Your task to perform on an android device: toggle wifi Image 0: 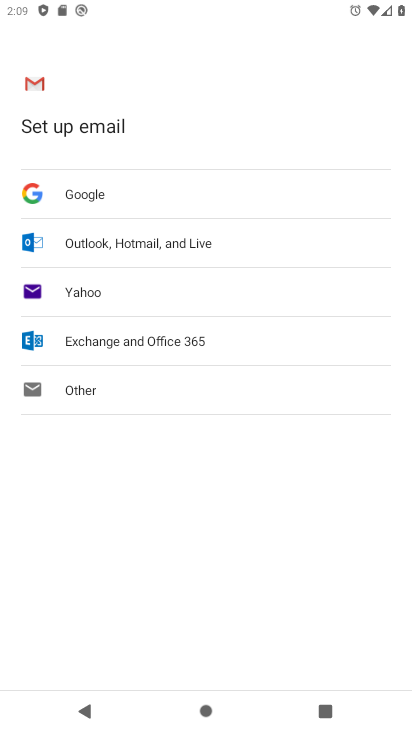
Step 0: press back button
Your task to perform on an android device: toggle wifi Image 1: 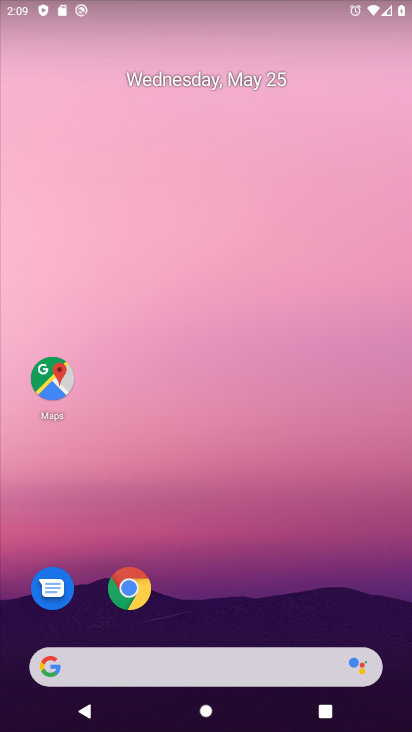
Step 1: drag from (288, 540) to (262, 48)
Your task to perform on an android device: toggle wifi Image 2: 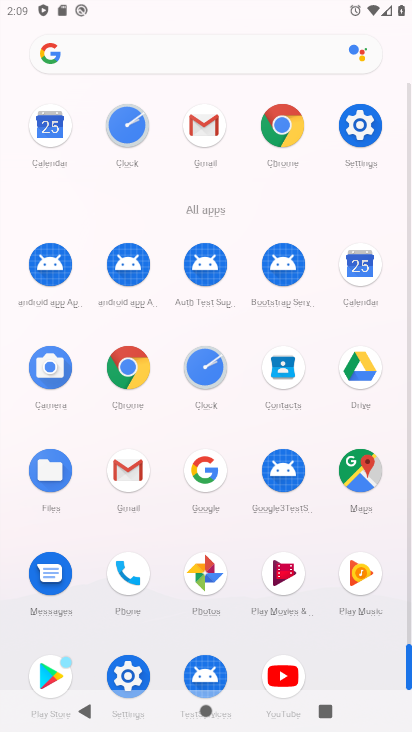
Step 2: drag from (6, 546) to (7, 236)
Your task to perform on an android device: toggle wifi Image 3: 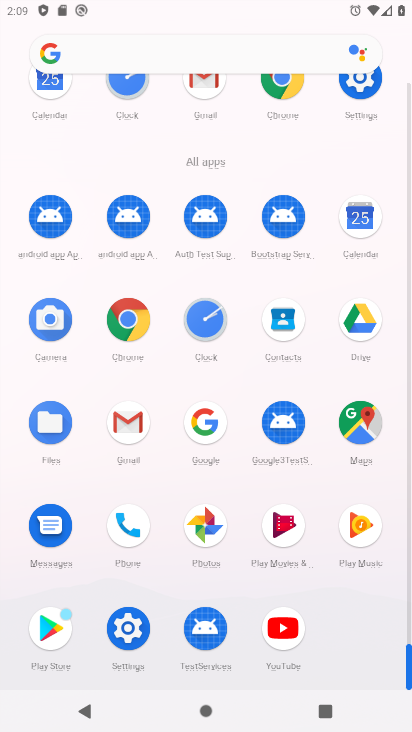
Step 3: click (124, 627)
Your task to perform on an android device: toggle wifi Image 4: 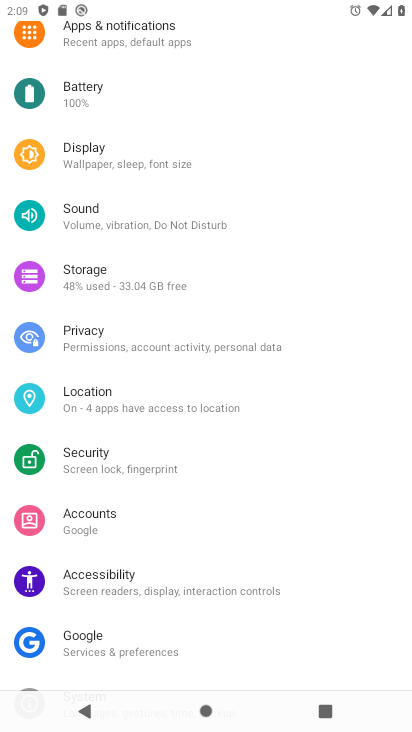
Step 4: drag from (220, 148) to (220, 484)
Your task to perform on an android device: toggle wifi Image 5: 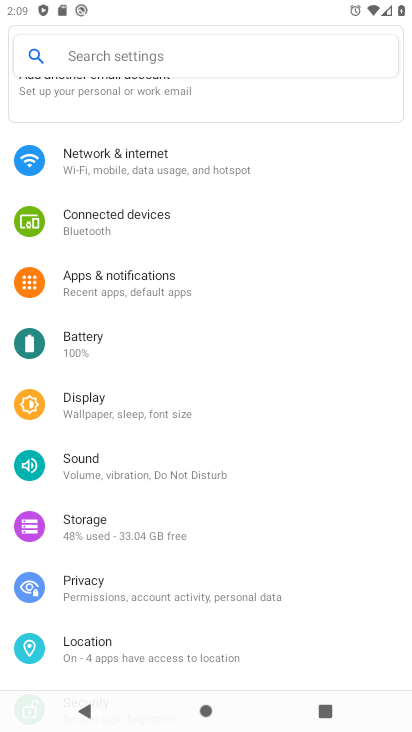
Step 5: click (166, 175)
Your task to perform on an android device: toggle wifi Image 6: 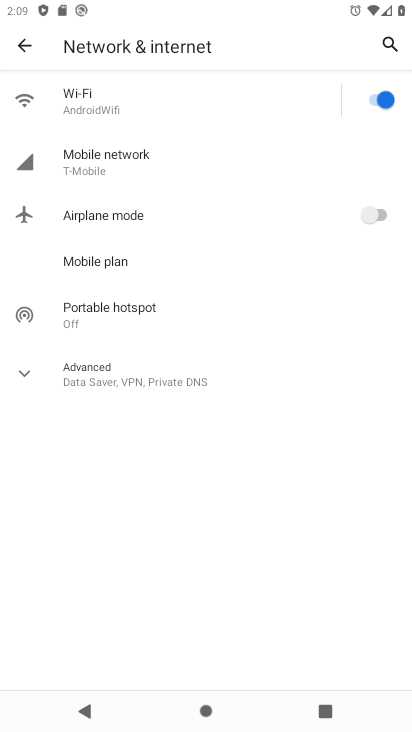
Step 6: click (31, 373)
Your task to perform on an android device: toggle wifi Image 7: 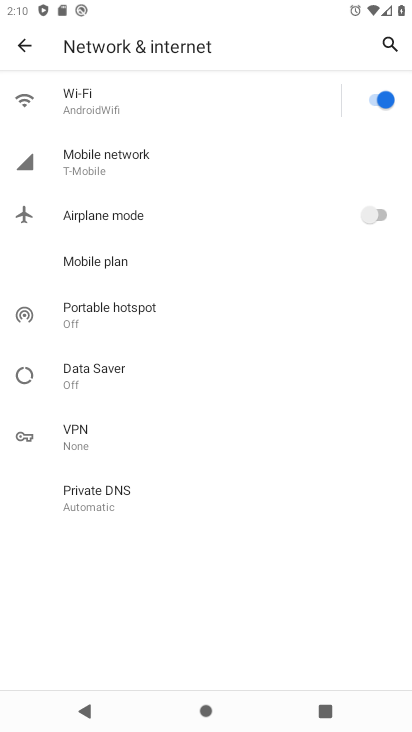
Step 7: click (378, 92)
Your task to perform on an android device: toggle wifi Image 8: 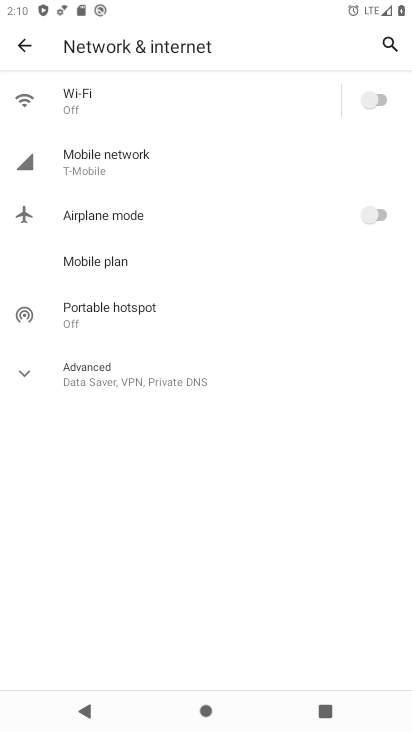
Step 8: click (33, 376)
Your task to perform on an android device: toggle wifi Image 9: 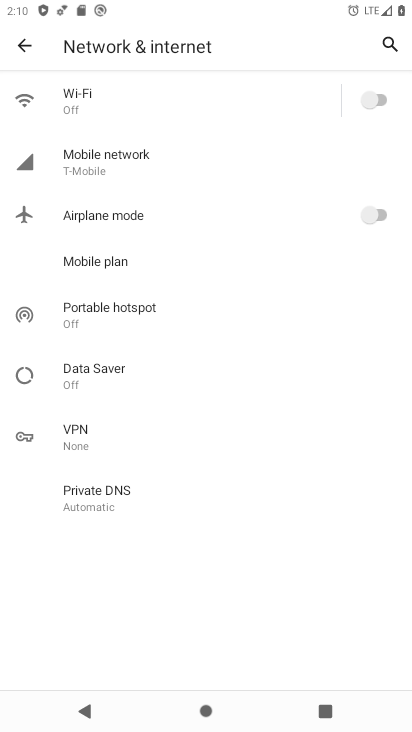
Step 9: task complete